Your task to perform on an android device: Find coffee shops on Maps Image 0: 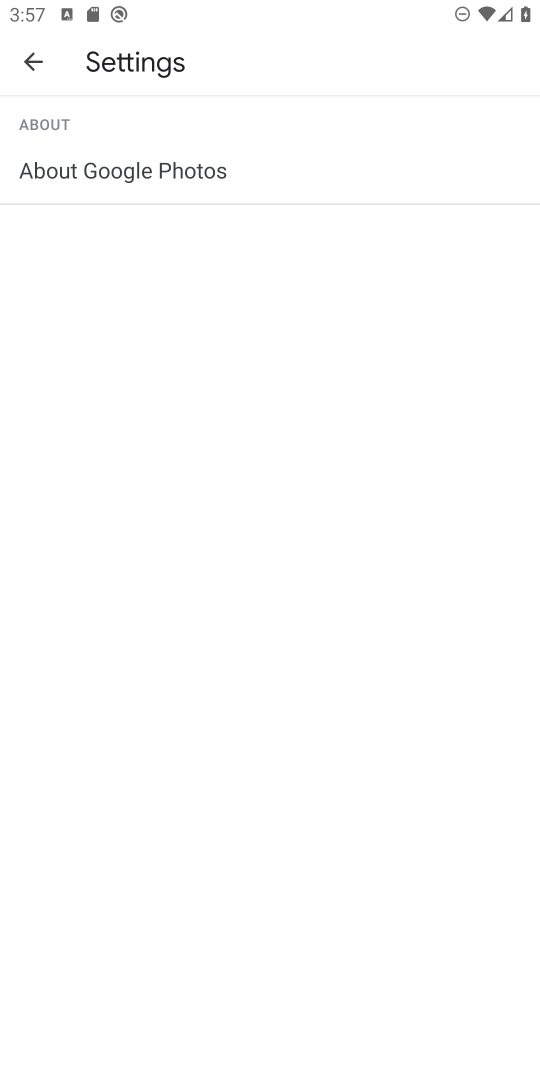
Step 0: press home button
Your task to perform on an android device: Find coffee shops on Maps Image 1: 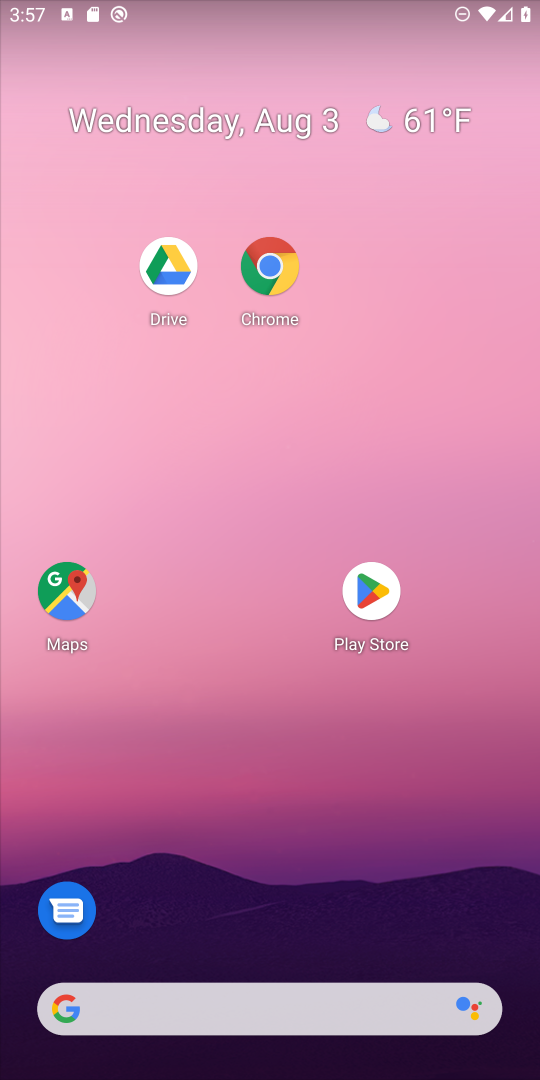
Step 1: drag from (150, 911) to (502, 44)
Your task to perform on an android device: Find coffee shops on Maps Image 2: 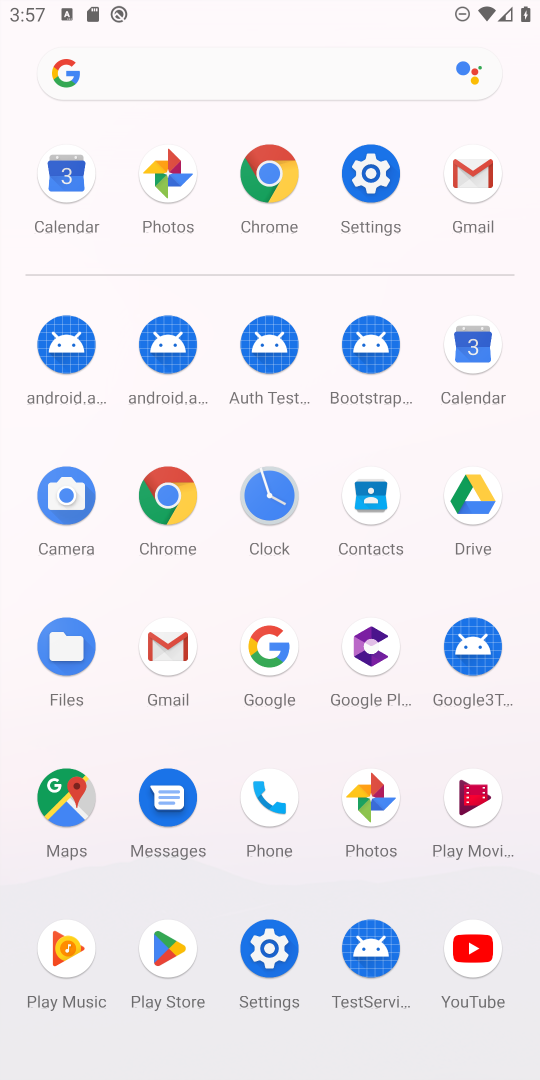
Step 2: click (67, 817)
Your task to perform on an android device: Find coffee shops on Maps Image 3: 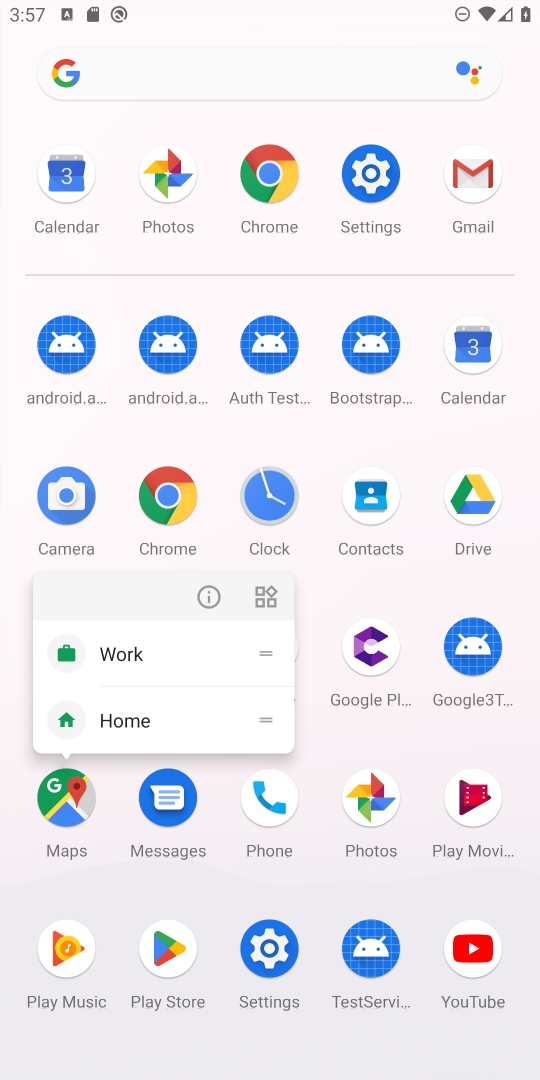
Step 3: click (66, 788)
Your task to perform on an android device: Find coffee shops on Maps Image 4: 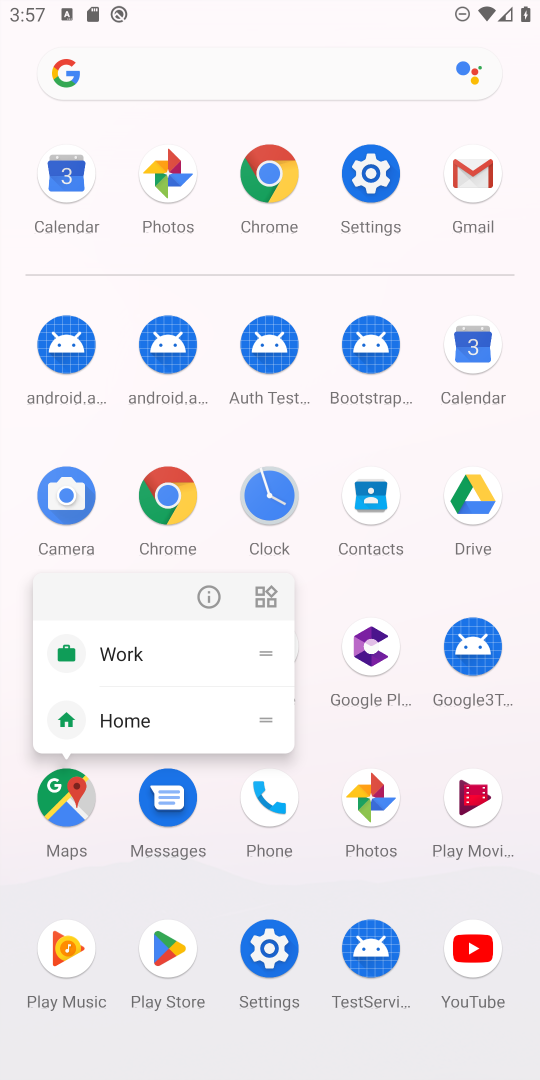
Step 4: click (73, 804)
Your task to perform on an android device: Find coffee shops on Maps Image 5: 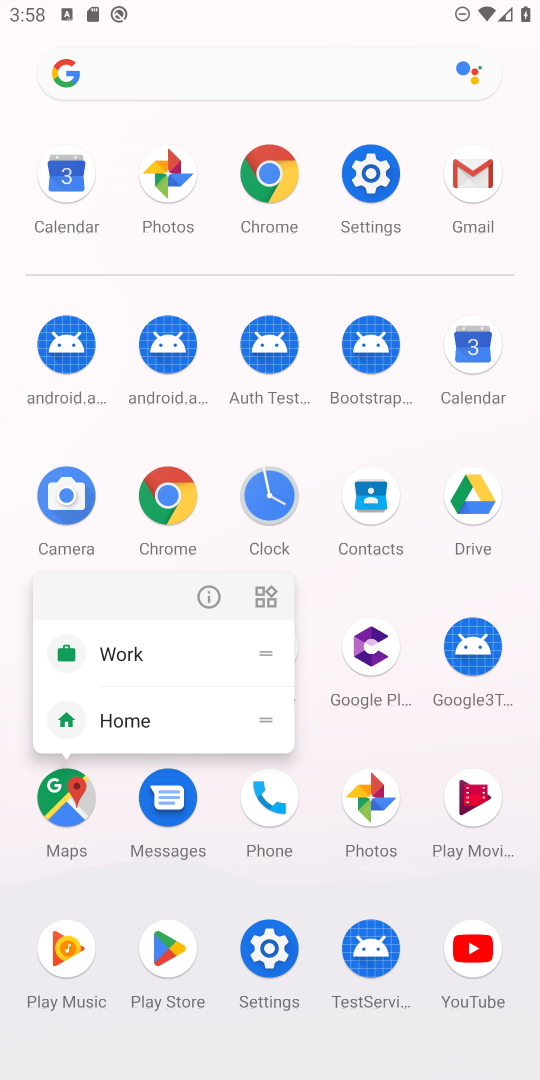
Step 5: click (71, 797)
Your task to perform on an android device: Find coffee shops on Maps Image 6: 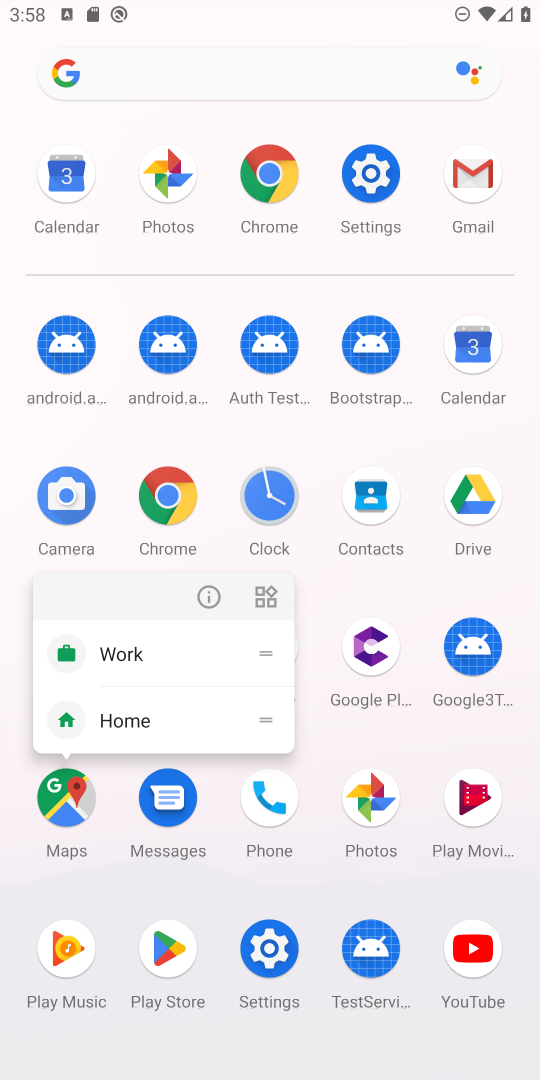
Step 6: click (54, 810)
Your task to perform on an android device: Find coffee shops on Maps Image 7: 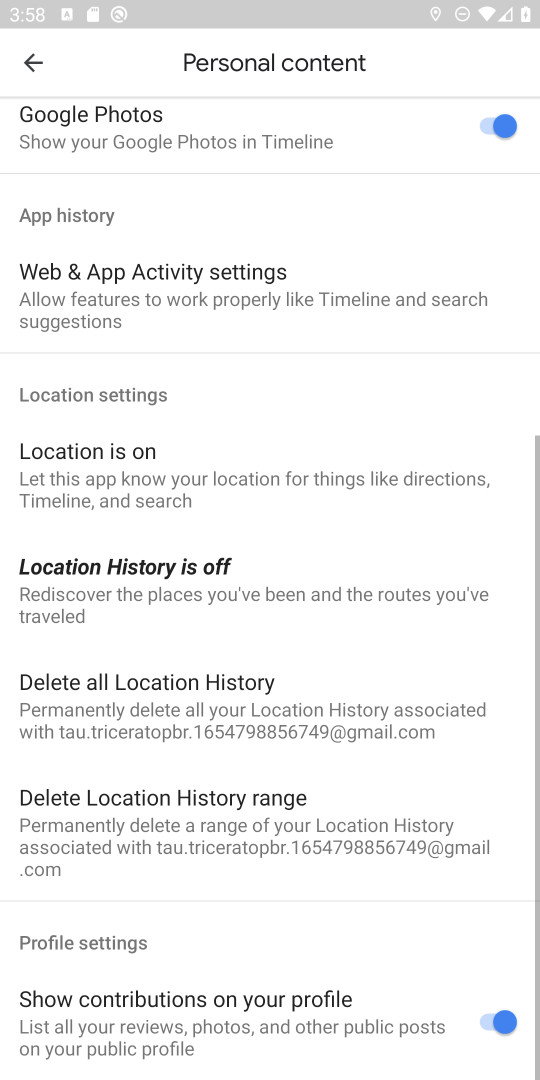
Step 7: press back button
Your task to perform on an android device: Find coffee shops on Maps Image 8: 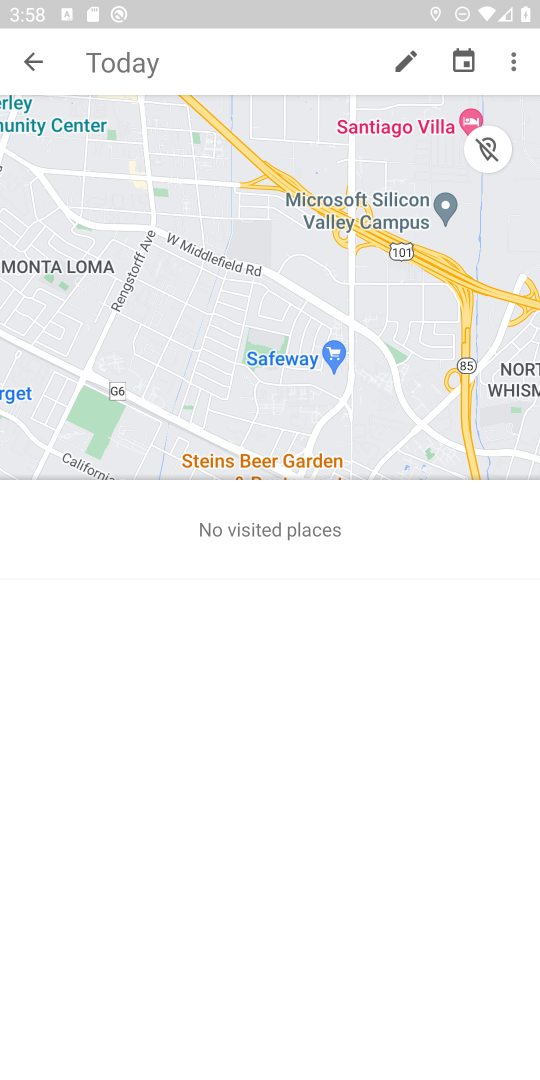
Step 8: press back button
Your task to perform on an android device: Find coffee shops on Maps Image 9: 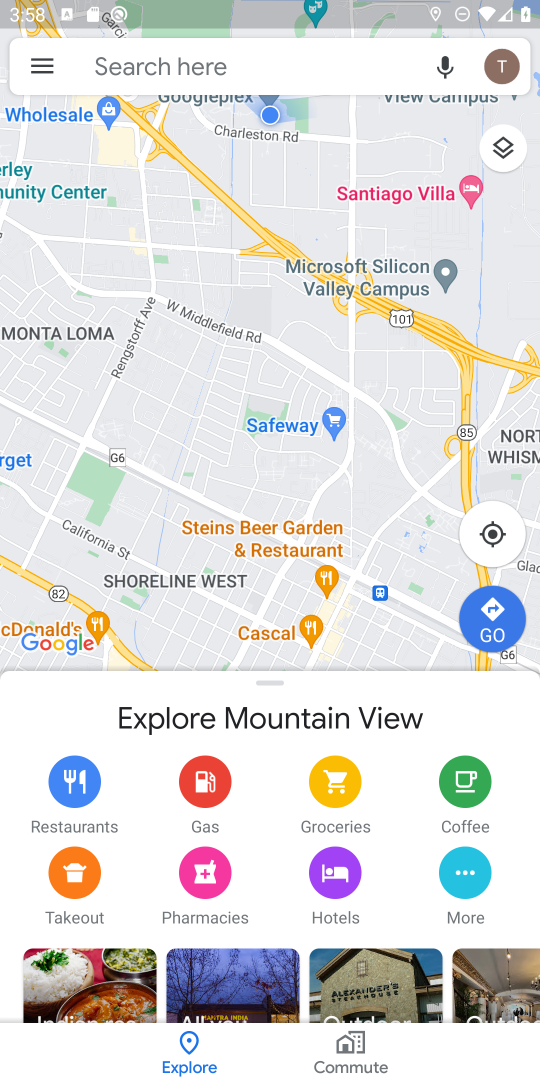
Step 9: press back button
Your task to perform on an android device: Find coffee shops on Maps Image 10: 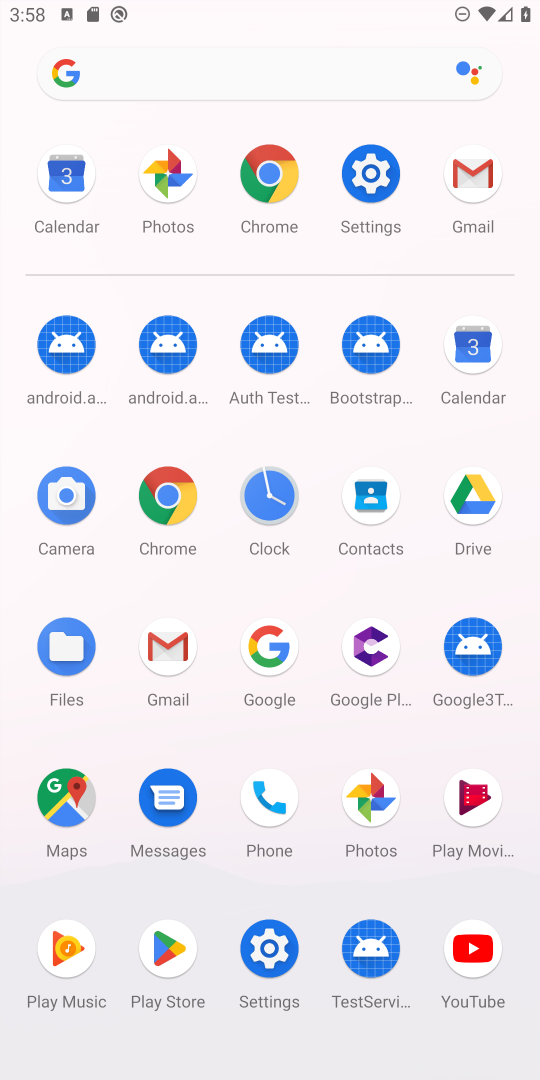
Step 10: click (57, 778)
Your task to perform on an android device: Find coffee shops on Maps Image 11: 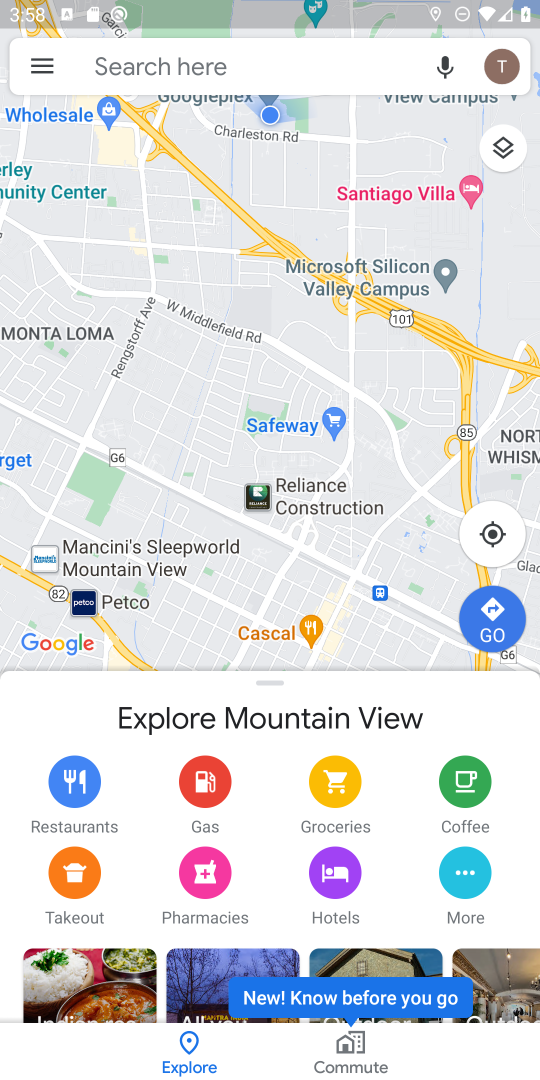
Step 11: click (27, 58)
Your task to perform on an android device: Find coffee shops on Maps Image 12: 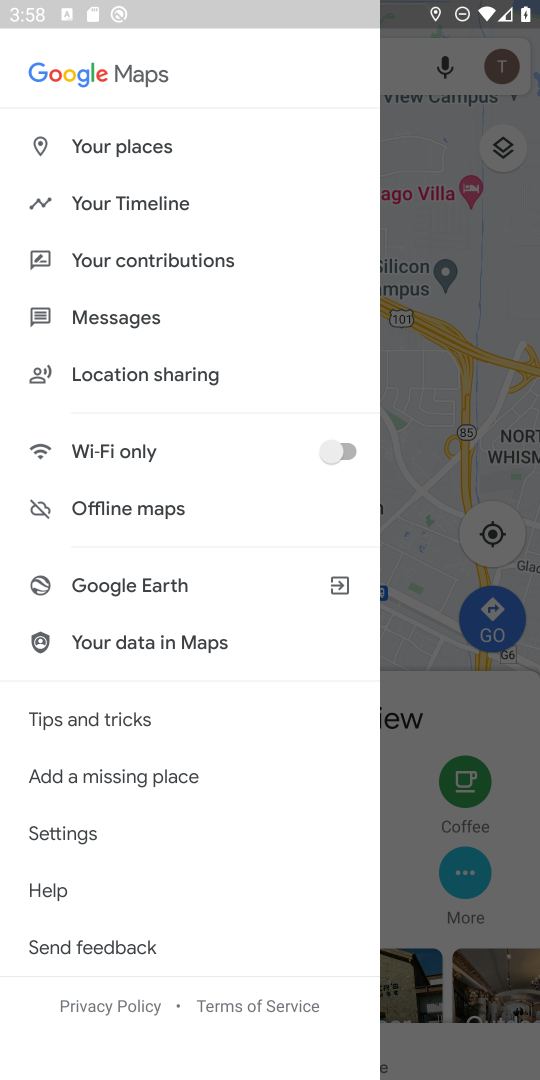
Step 12: click (443, 172)
Your task to perform on an android device: Find coffee shops on Maps Image 13: 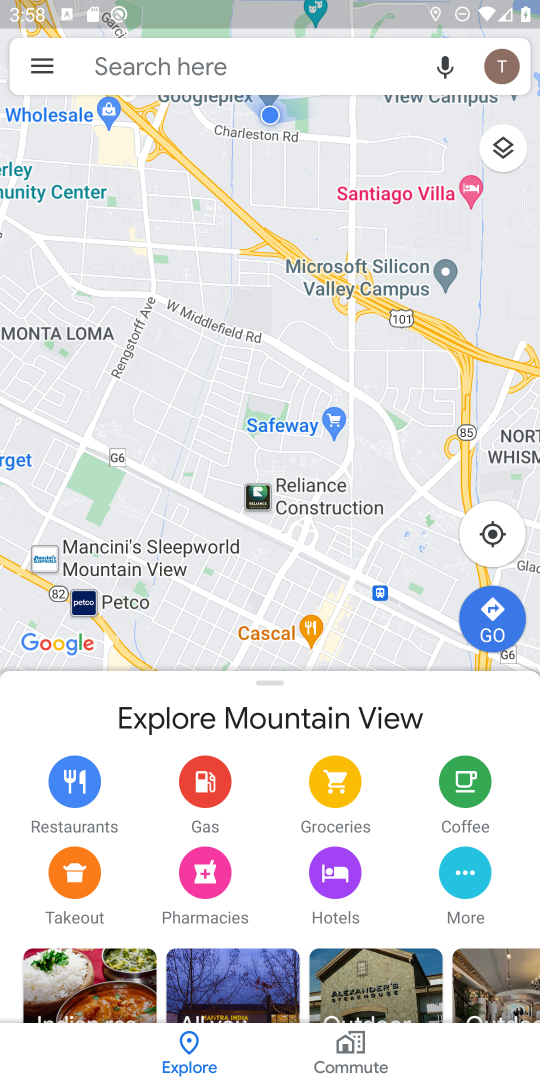
Step 13: click (239, 63)
Your task to perform on an android device: Find coffee shops on Maps Image 14: 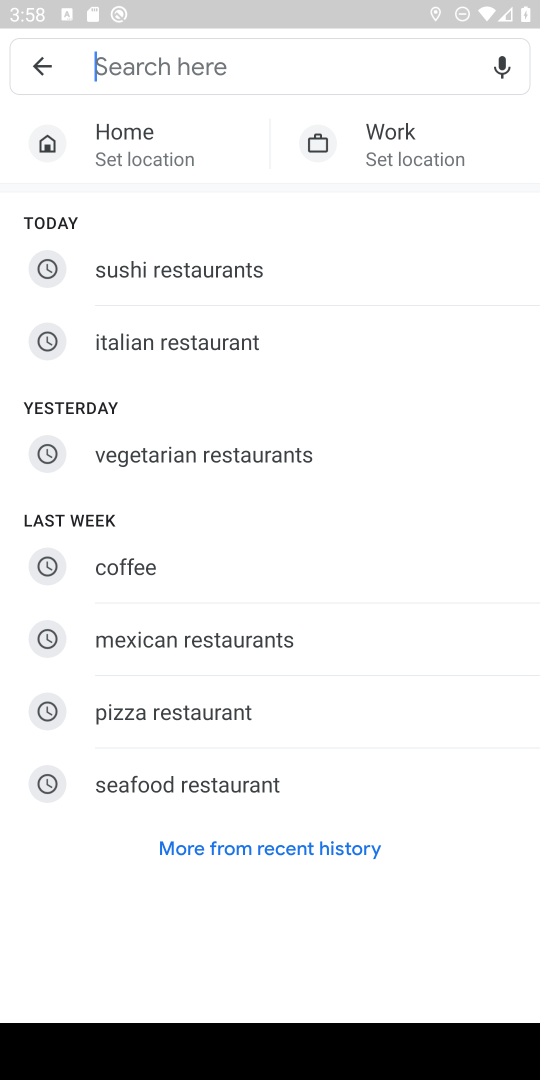
Step 14: click (150, 566)
Your task to perform on an android device: Find coffee shops on Maps Image 15: 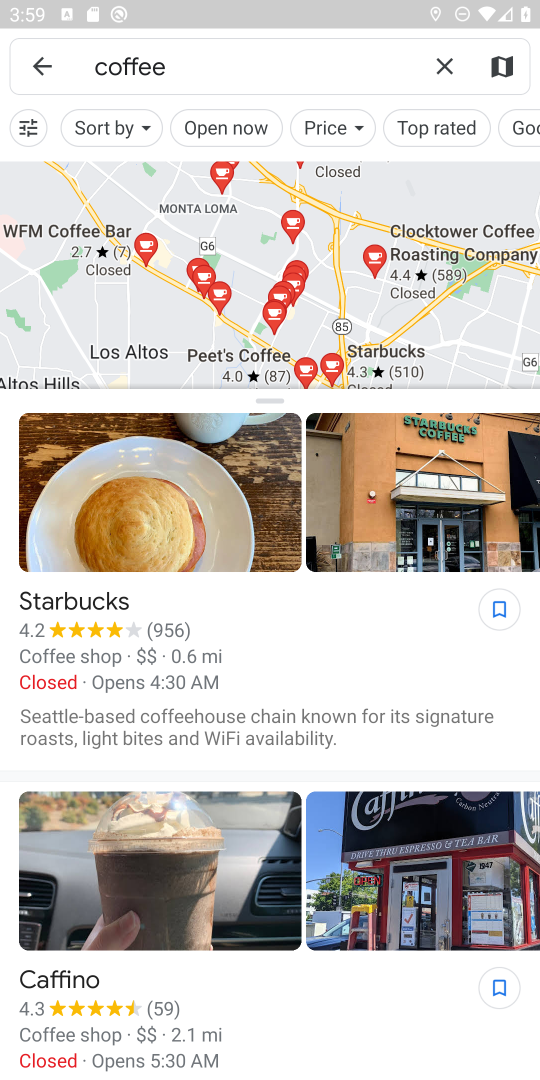
Step 15: task complete